Your task to perform on an android device: set the stopwatch Image 0: 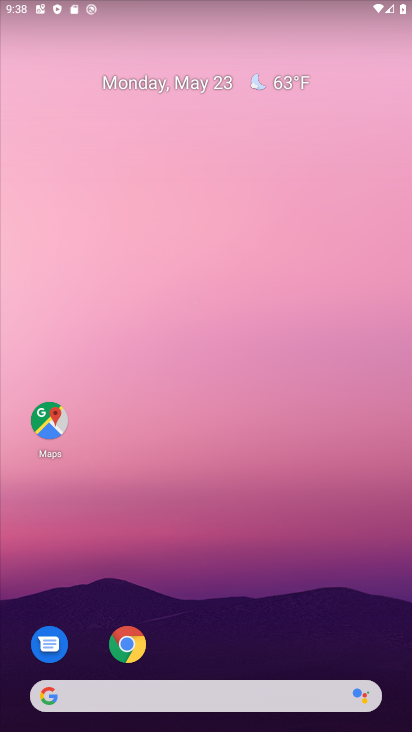
Step 0: drag from (234, 624) to (250, 0)
Your task to perform on an android device: set the stopwatch Image 1: 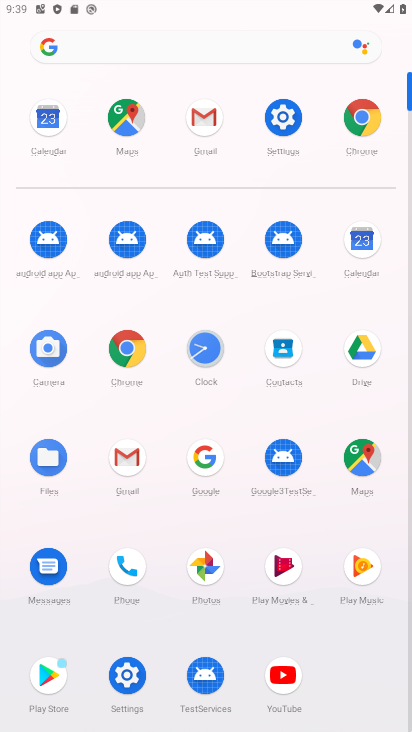
Step 1: click (203, 341)
Your task to perform on an android device: set the stopwatch Image 2: 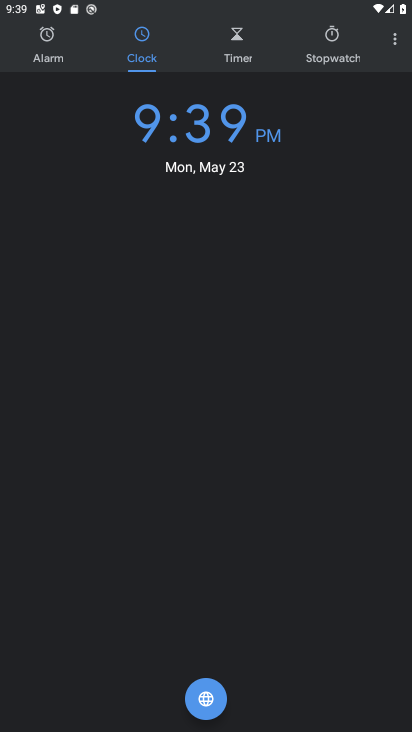
Step 2: click (330, 44)
Your task to perform on an android device: set the stopwatch Image 3: 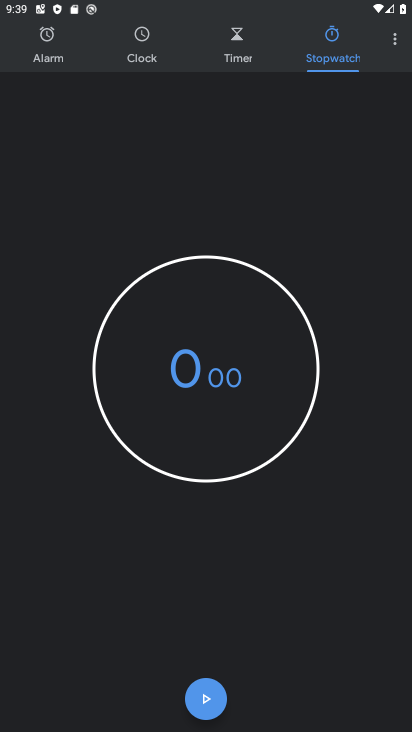
Step 3: click (197, 698)
Your task to perform on an android device: set the stopwatch Image 4: 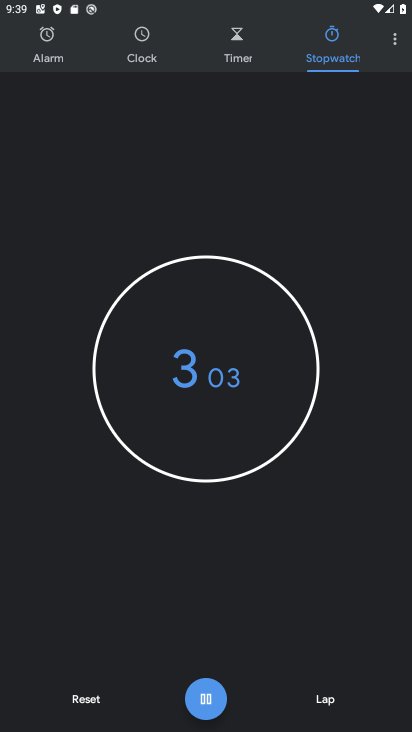
Step 4: task complete